Your task to perform on an android device: toggle priority inbox in the gmail app Image 0: 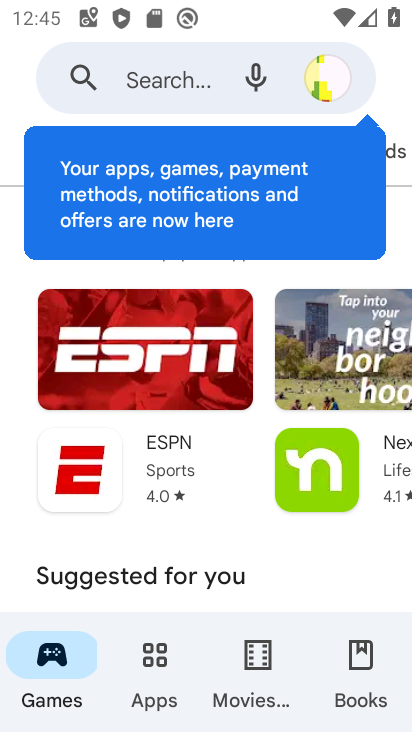
Step 0: press home button
Your task to perform on an android device: toggle priority inbox in the gmail app Image 1: 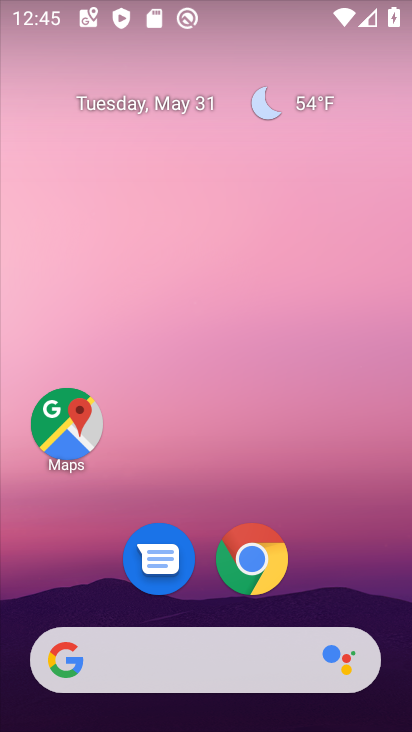
Step 1: drag from (112, 619) to (78, 0)
Your task to perform on an android device: toggle priority inbox in the gmail app Image 2: 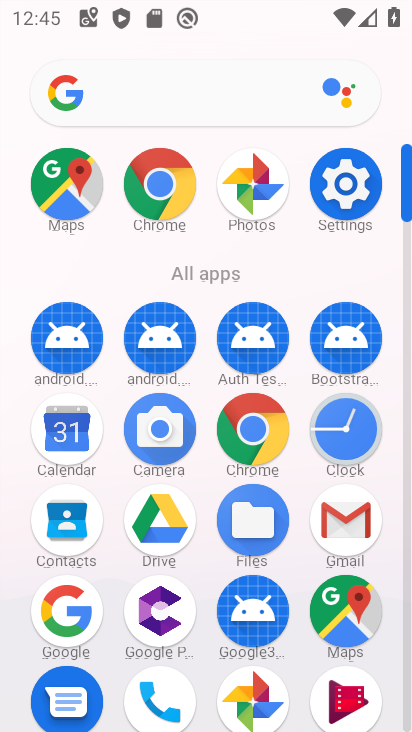
Step 2: click (329, 518)
Your task to perform on an android device: toggle priority inbox in the gmail app Image 3: 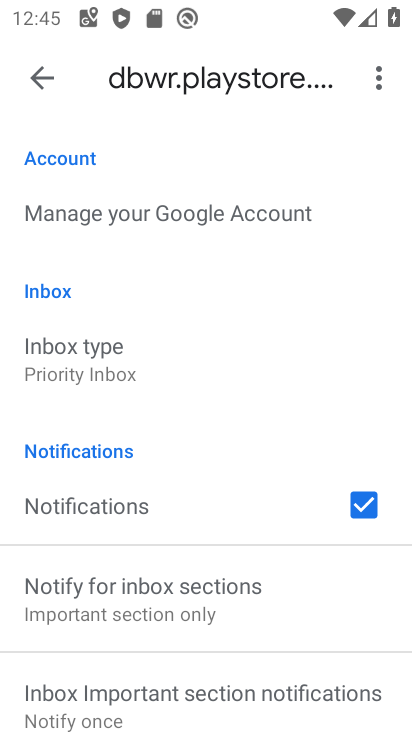
Step 3: click (98, 373)
Your task to perform on an android device: toggle priority inbox in the gmail app Image 4: 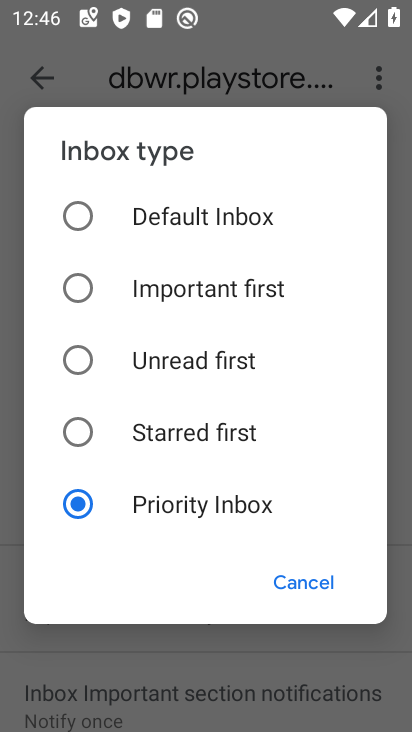
Step 4: task complete